Your task to perform on an android device: delete browsing data in the chrome app Image 0: 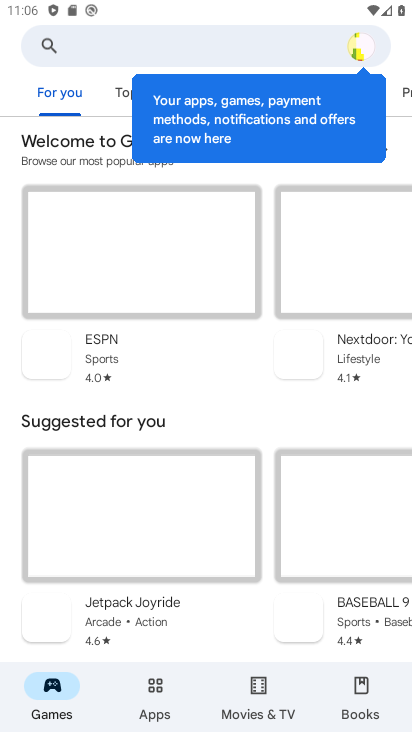
Step 0: press home button
Your task to perform on an android device: delete browsing data in the chrome app Image 1: 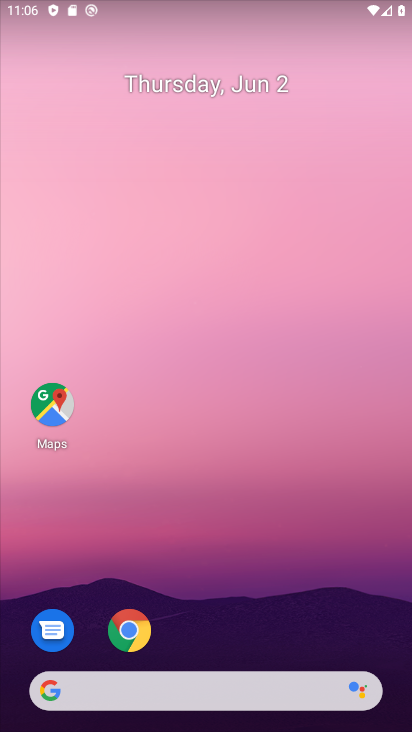
Step 1: drag from (208, 697) to (317, 71)
Your task to perform on an android device: delete browsing data in the chrome app Image 2: 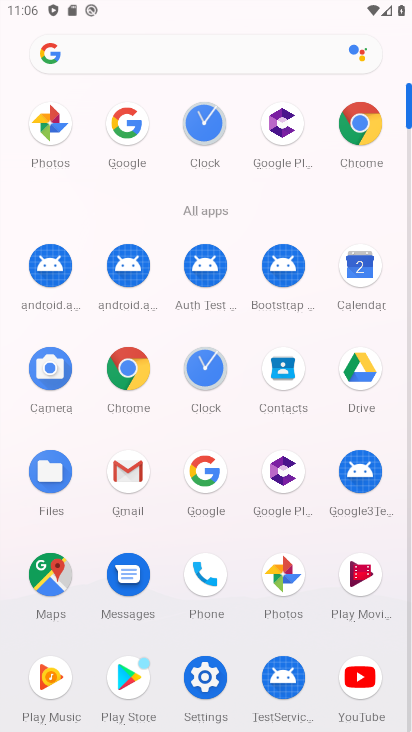
Step 2: drag from (94, 599) to (174, 287)
Your task to perform on an android device: delete browsing data in the chrome app Image 3: 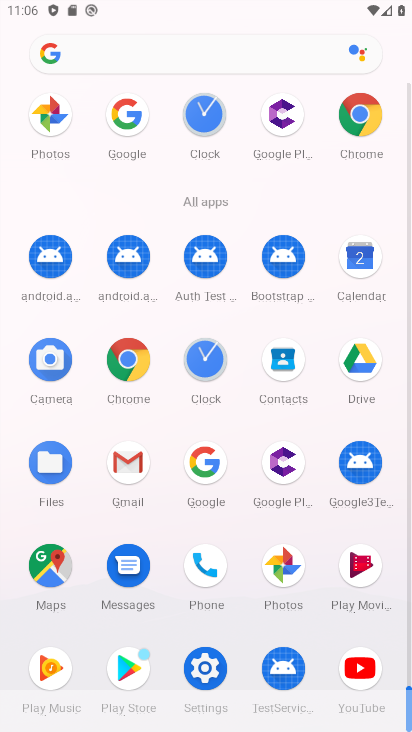
Step 3: click (135, 365)
Your task to perform on an android device: delete browsing data in the chrome app Image 4: 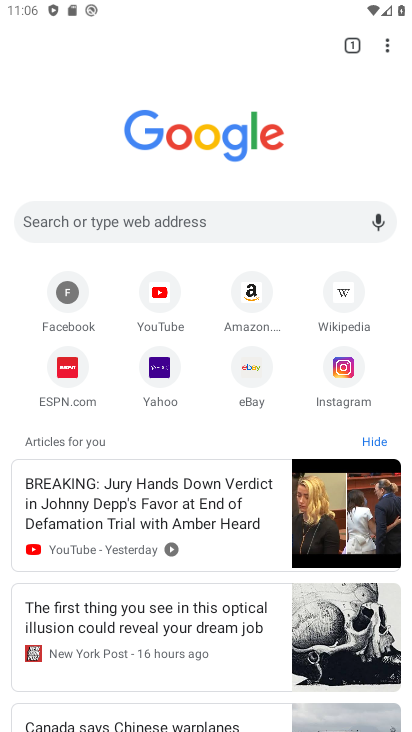
Step 4: drag from (397, 53) to (285, 382)
Your task to perform on an android device: delete browsing data in the chrome app Image 5: 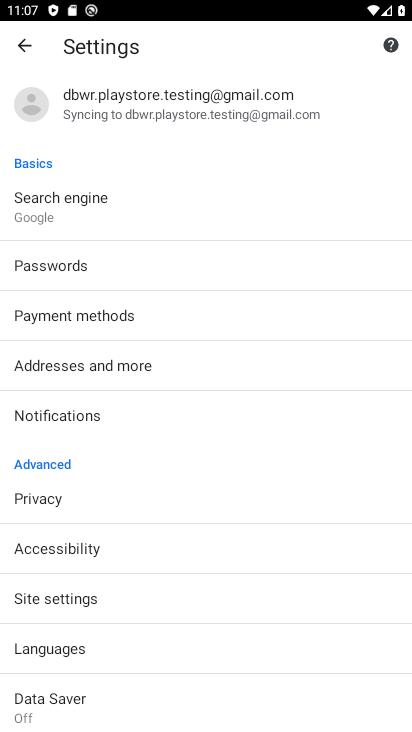
Step 5: drag from (271, 643) to (358, 282)
Your task to perform on an android device: delete browsing data in the chrome app Image 6: 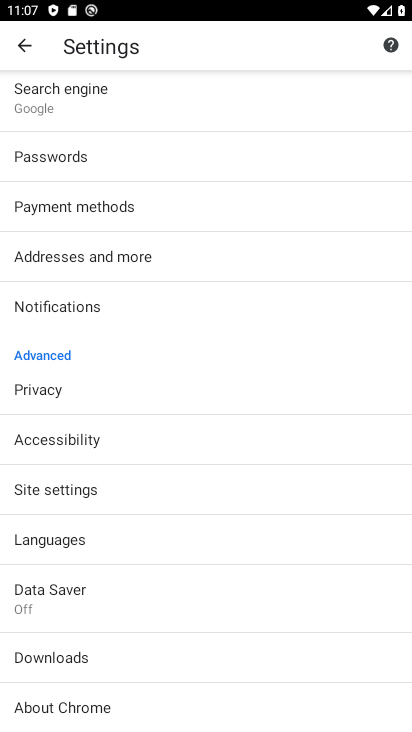
Step 6: drag from (126, 669) to (224, 397)
Your task to perform on an android device: delete browsing data in the chrome app Image 7: 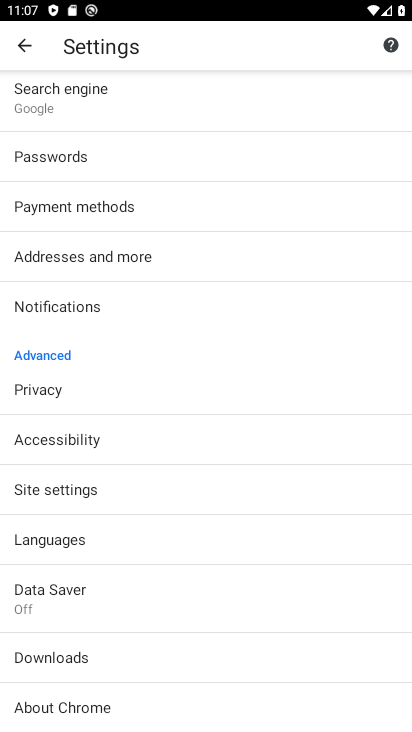
Step 7: click (163, 393)
Your task to perform on an android device: delete browsing data in the chrome app Image 8: 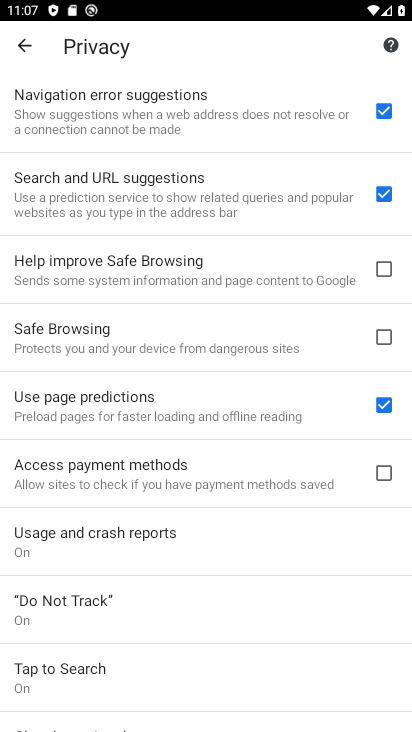
Step 8: drag from (178, 693) to (248, 391)
Your task to perform on an android device: delete browsing data in the chrome app Image 9: 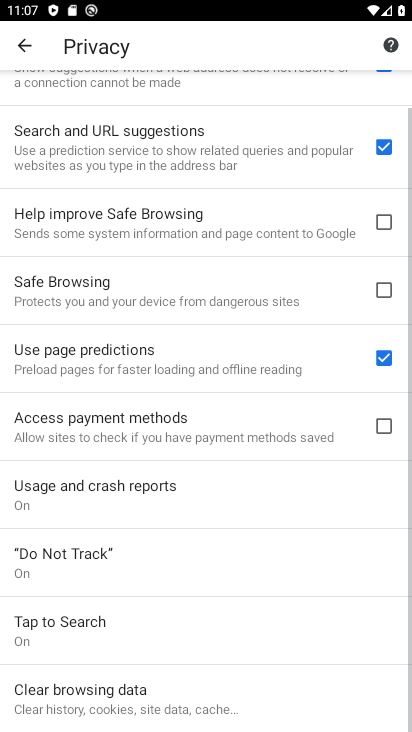
Step 9: click (156, 707)
Your task to perform on an android device: delete browsing data in the chrome app Image 10: 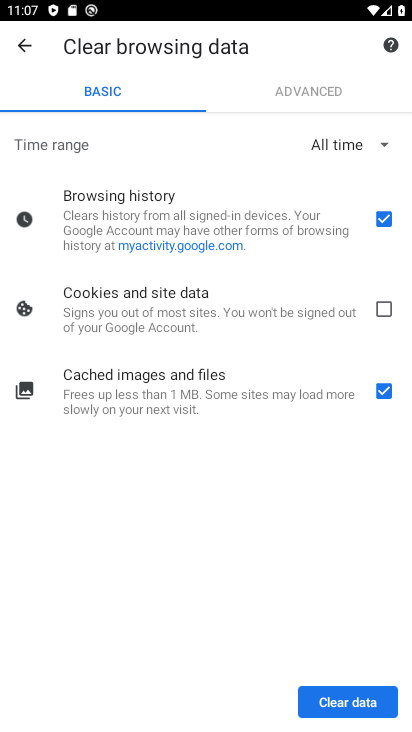
Step 10: click (391, 300)
Your task to perform on an android device: delete browsing data in the chrome app Image 11: 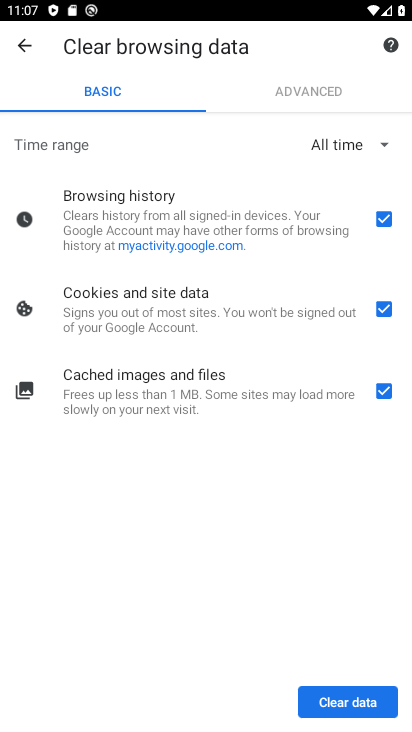
Step 11: click (357, 692)
Your task to perform on an android device: delete browsing data in the chrome app Image 12: 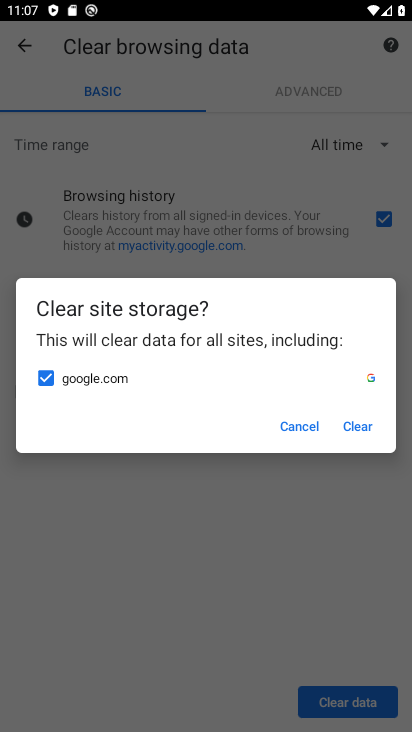
Step 12: click (371, 436)
Your task to perform on an android device: delete browsing data in the chrome app Image 13: 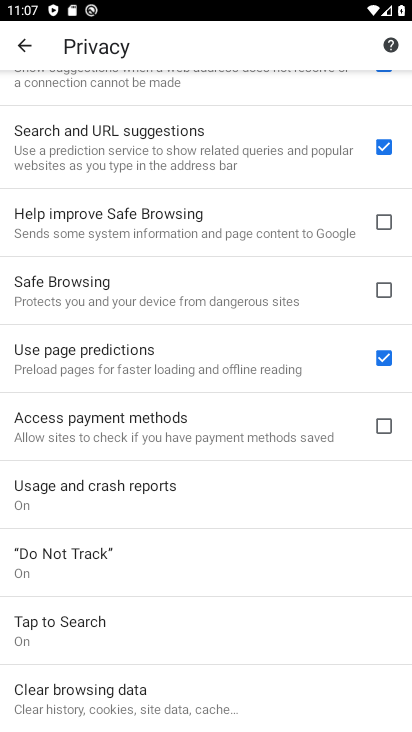
Step 13: task complete